Your task to perform on an android device: Open battery settings Image 0: 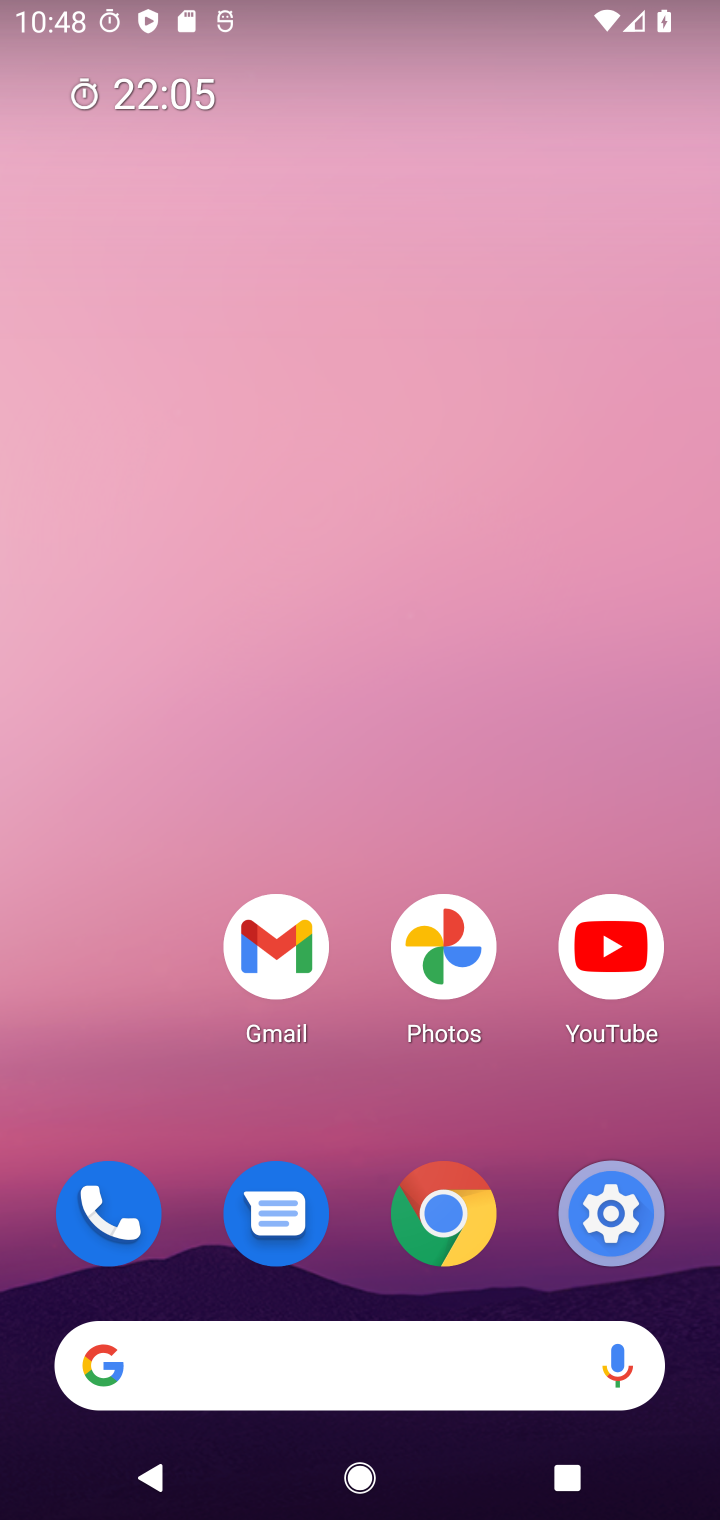
Step 0: drag from (364, 1140) to (413, 228)
Your task to perform on an android device: Open battery settings Image 1: 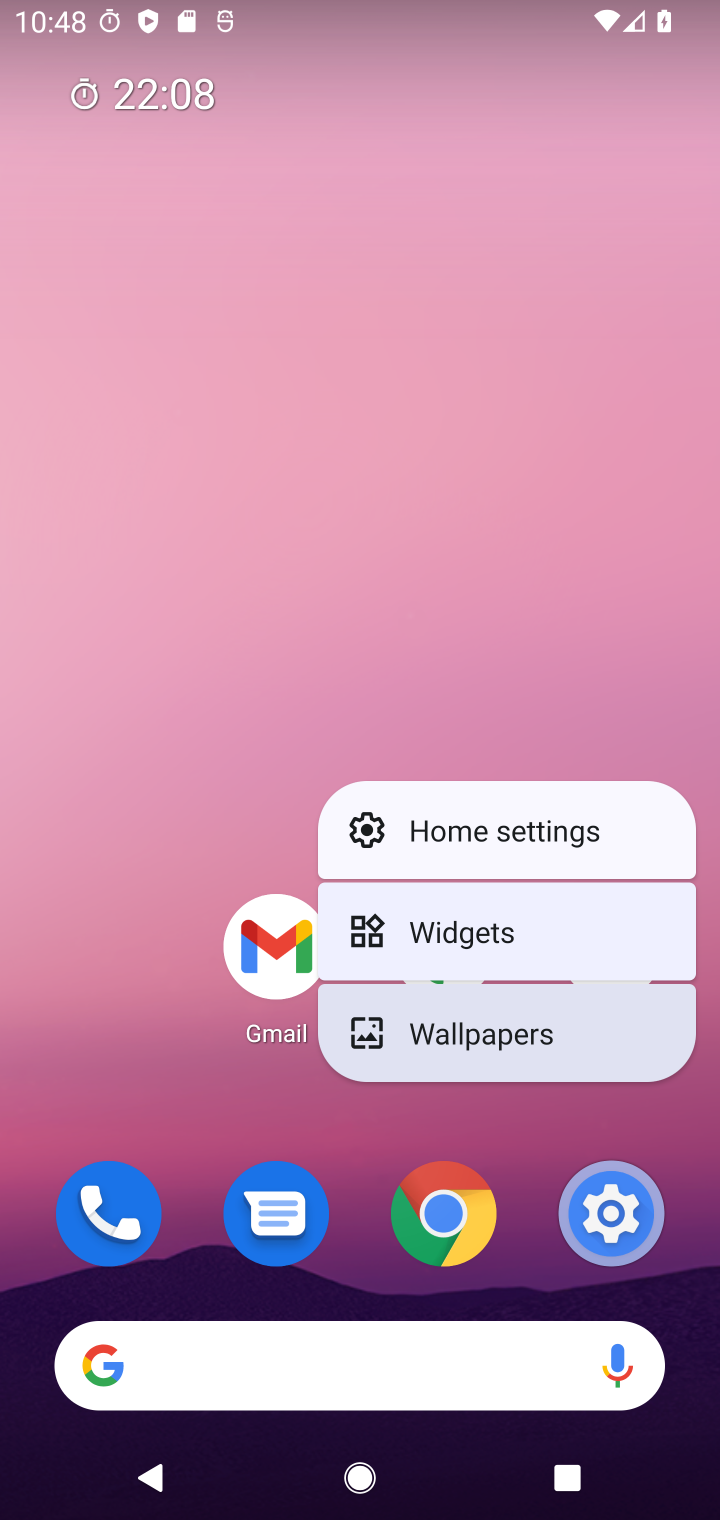
Step 1: drag from (128, 1096) to (269, 187)
Your task to perform on an android device: Open battery settings Image 2: 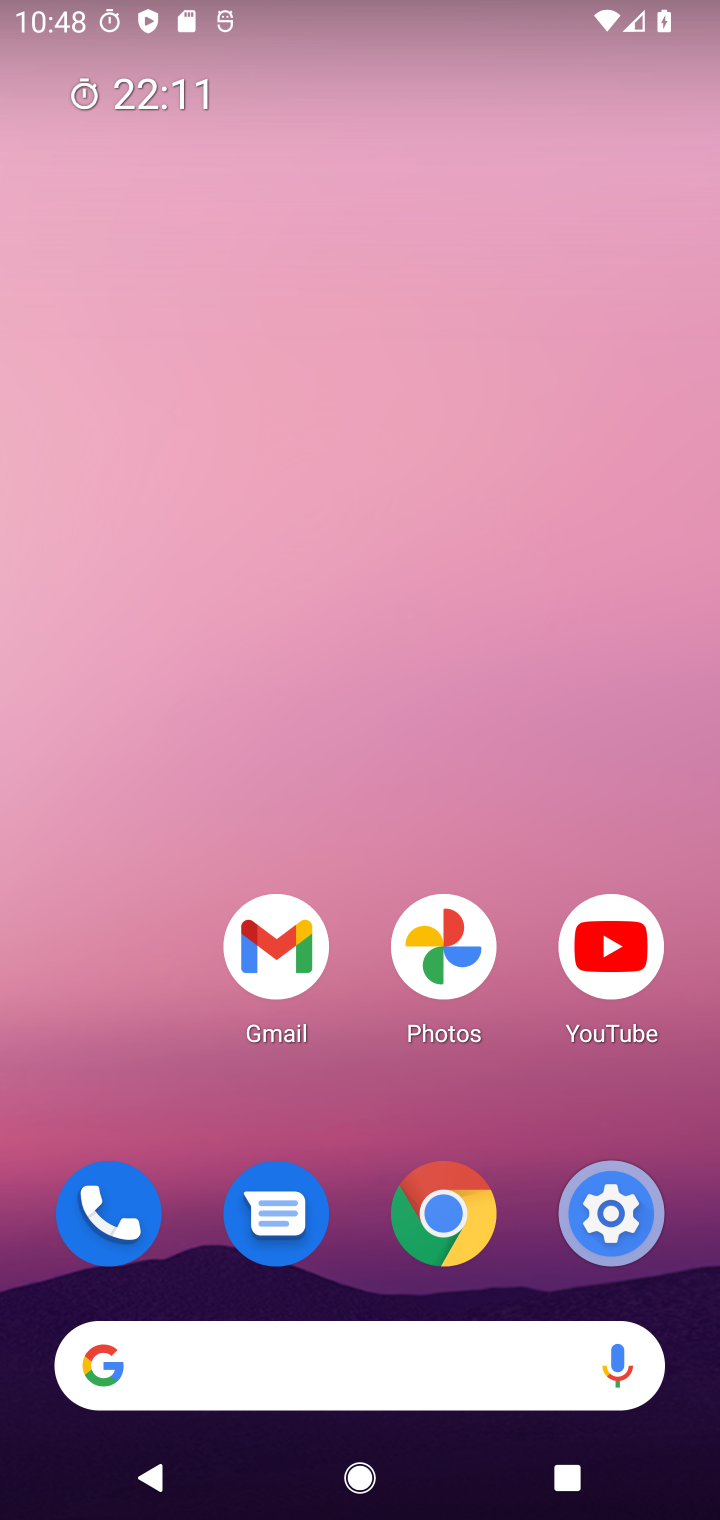
Step 2: drag from (337, 1062) to (380, 331)
Your task to perform on an android device: Open battery settings Image 3: 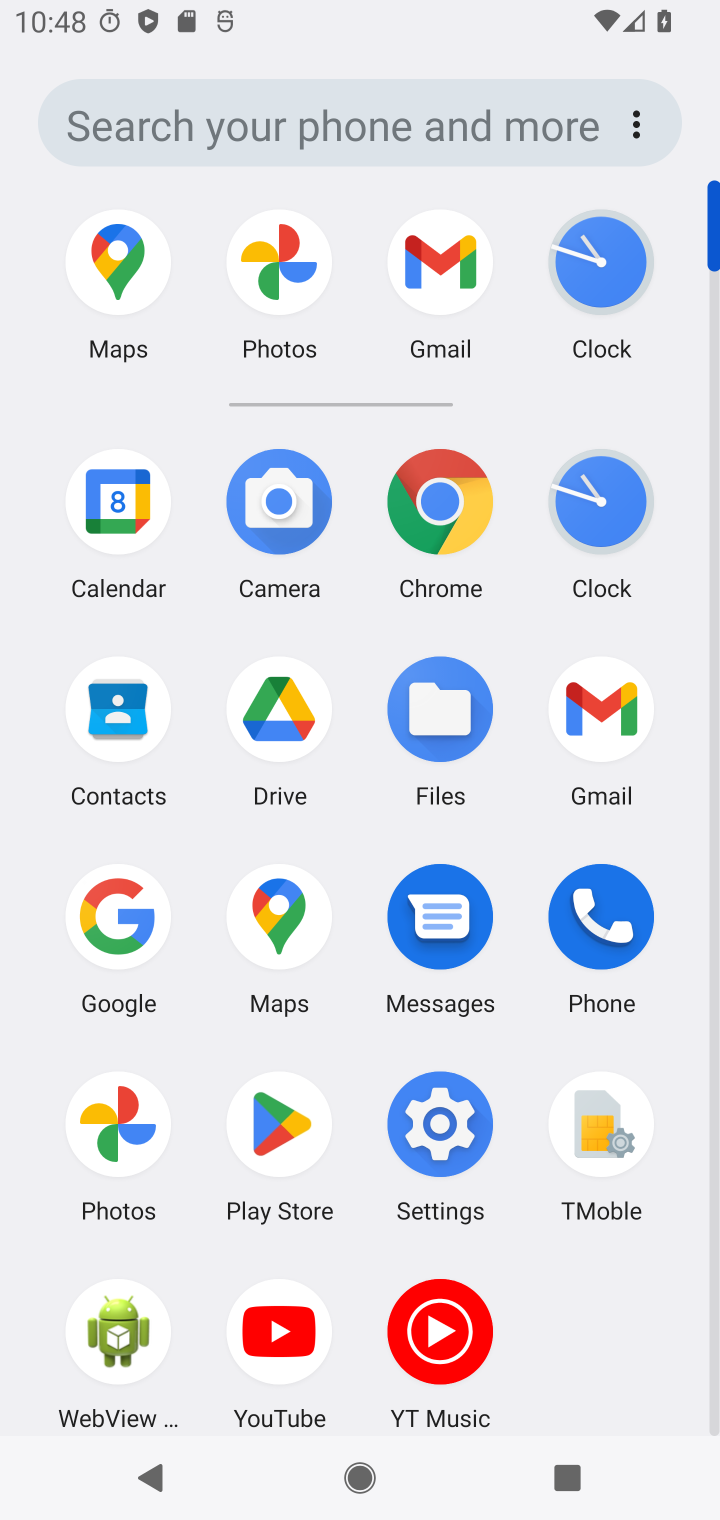
Step 3: click (453, 1129)
Your task to perform on an android device: Open battery settings Image 4: 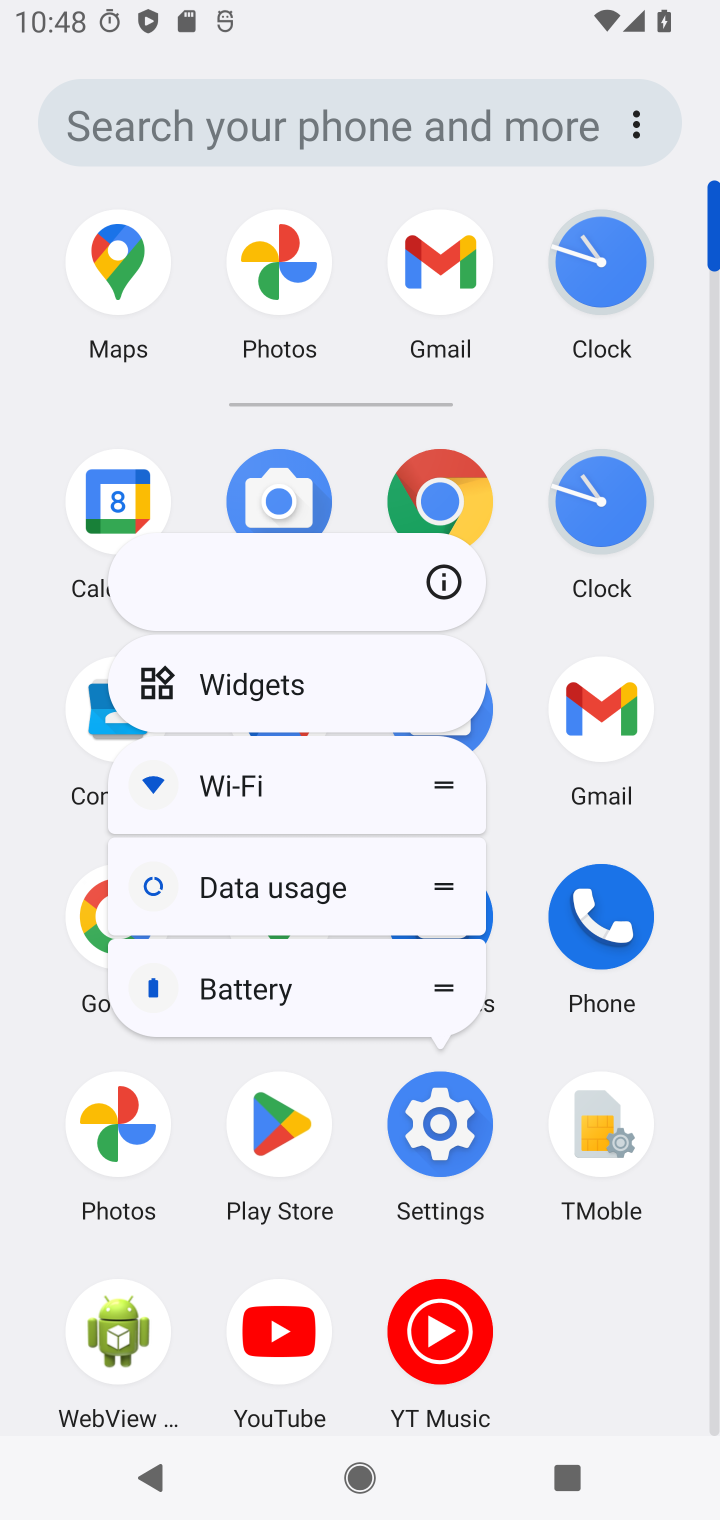
Step 4: click (426, 1155)
Your task to perform on an android device: Open battery settings Image 5: 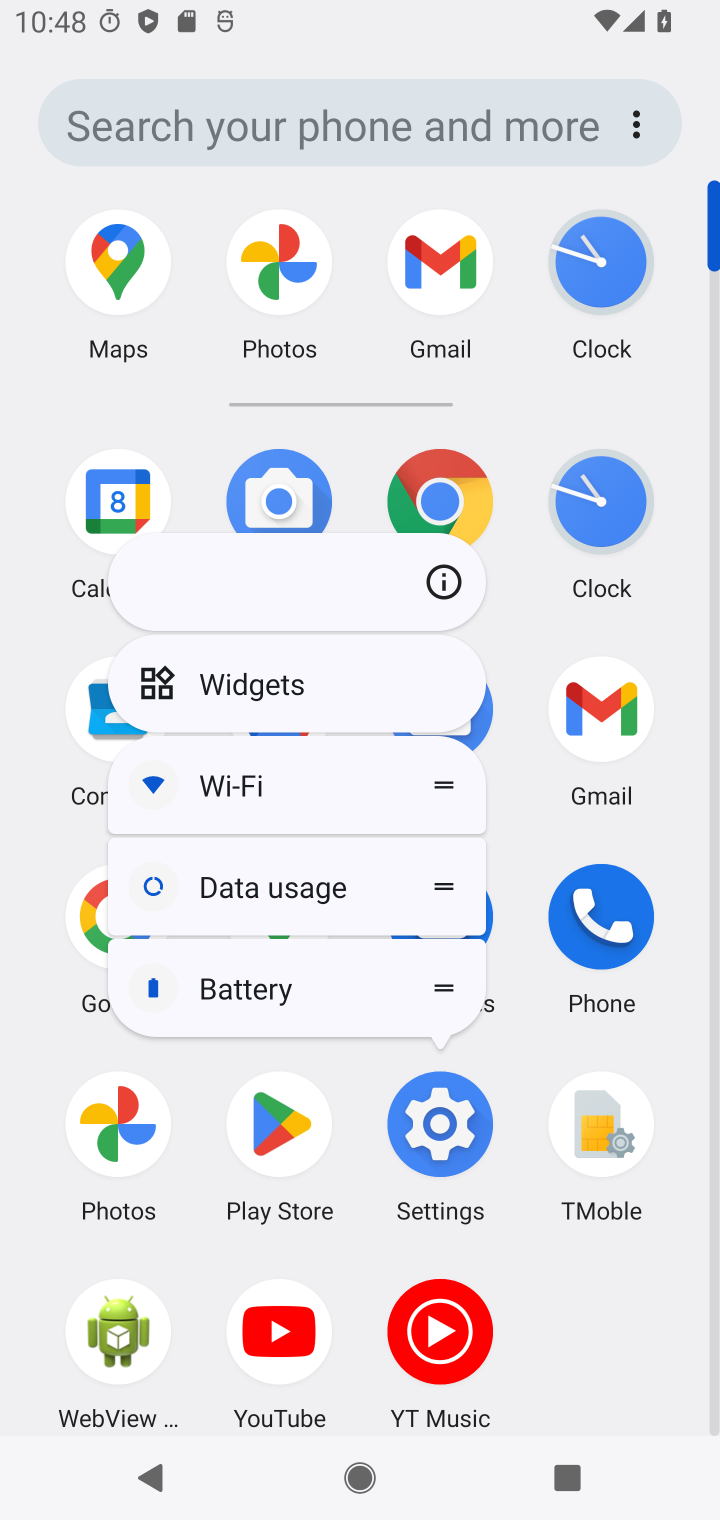
Step 5: click (426, 1155)
Your task to perform on an android device: Open battery settings Image 6: 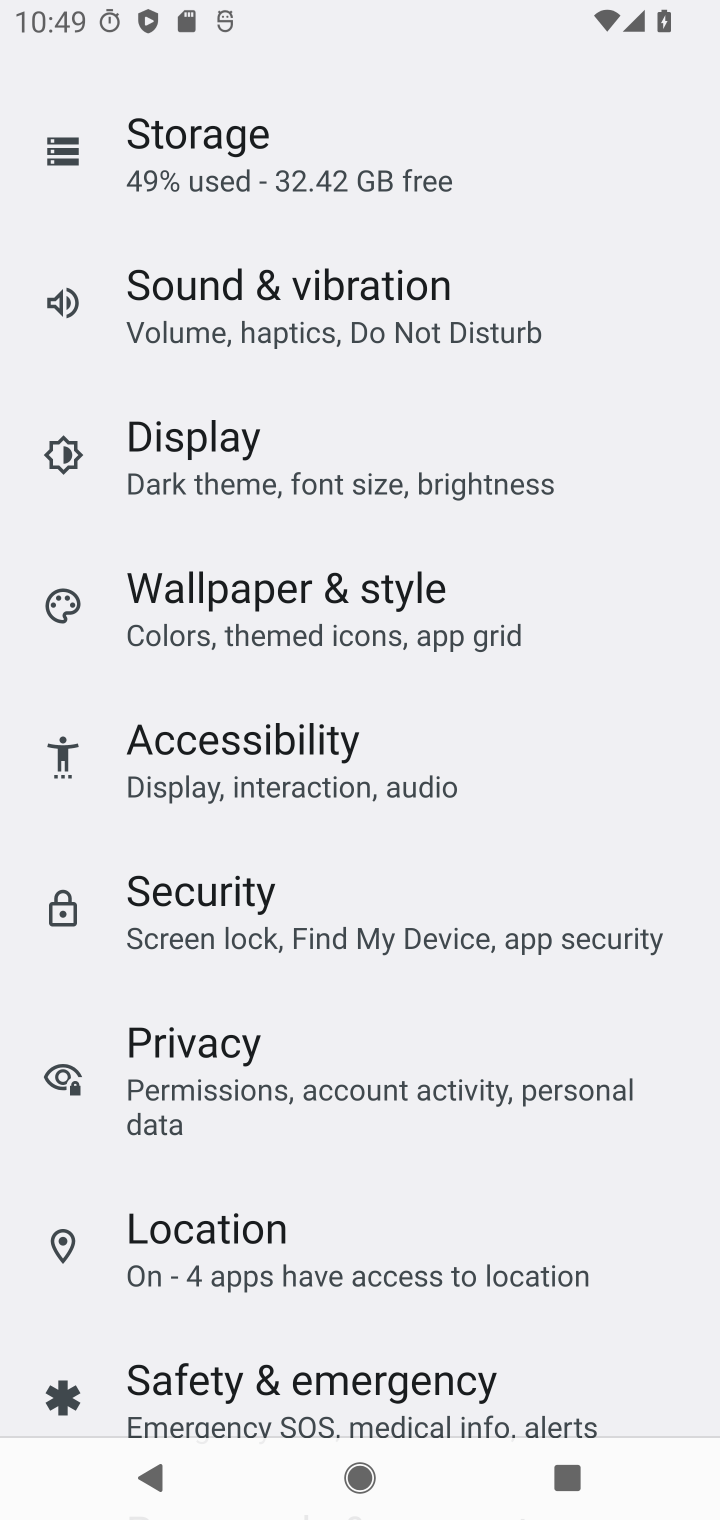
Step 6: drag from (364, 254) to (507, 1290)
Your task to perform on an android device: Open battery settings Image 7: 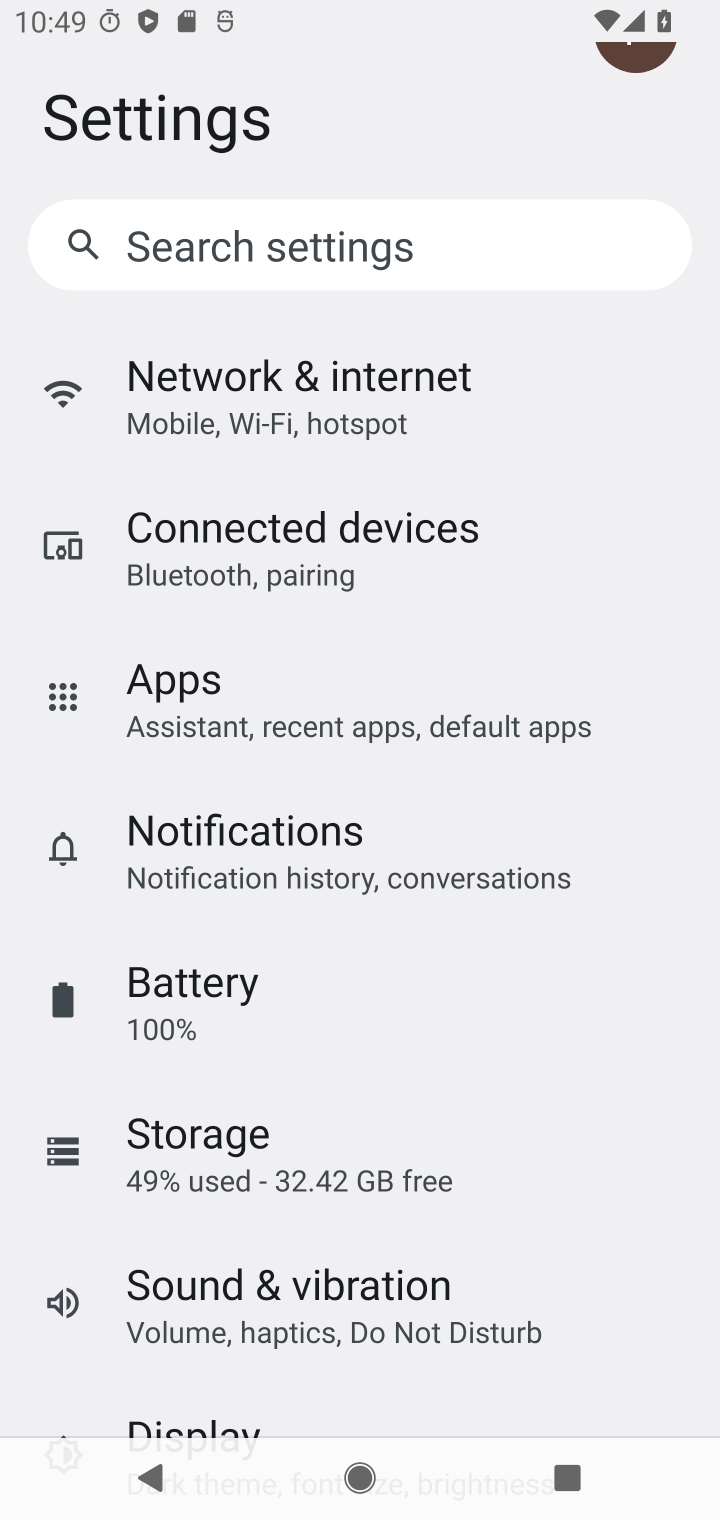
Step 7: click (211, 1049)
Your task to perform on an android device: Open battery settings Image 8: 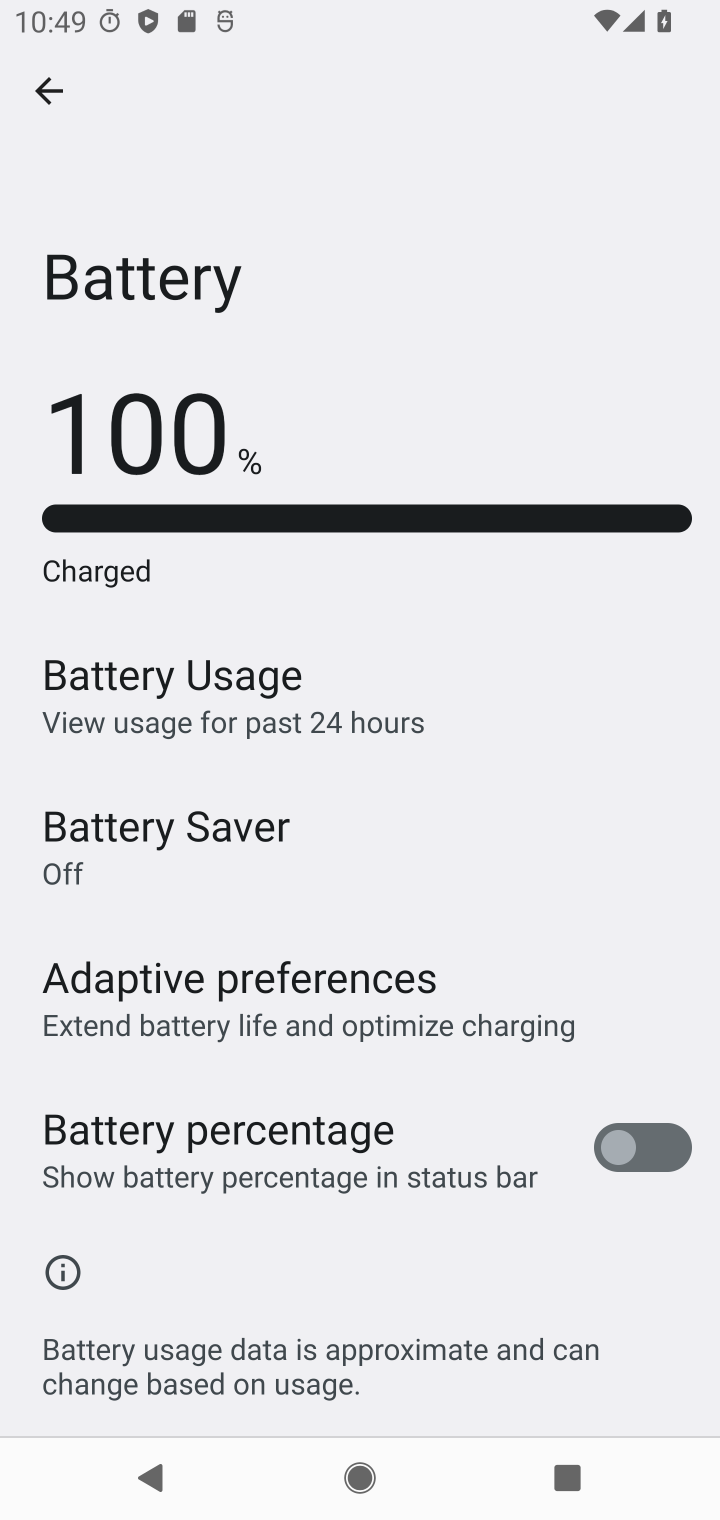
Step 8: task complete